Your task to perform on an android device: open app "NewsBreak: Local News & Alerts" (install if not already installed) Image 0: 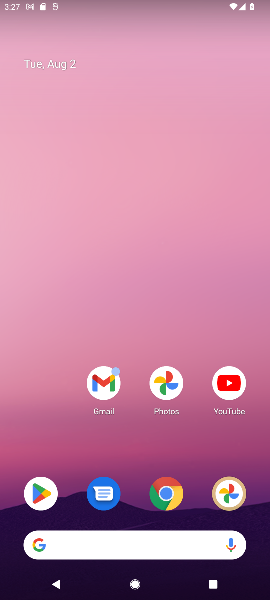
Step 0: click (42, 494)
Your task to perform on an android device: open app "NewsBreak: Local News & Alerts" (install if not already installed) Image 1: 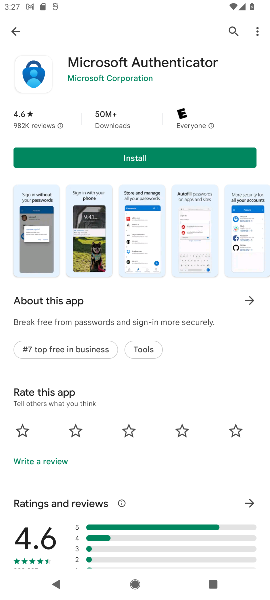
Step 1: click (17, 28)
Your task to perform on an android device: open app "NewsBreak: Local News & Alerts" (install if not already installed) Image 2: 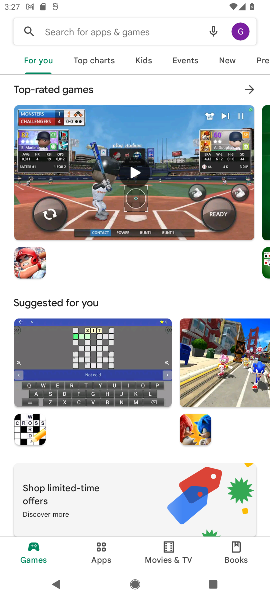
Step 2: click (75, 28)
Your task to perform on an android device: open app "NewsBreak: Local News & Alerts" (install if not already installed) Image 3: 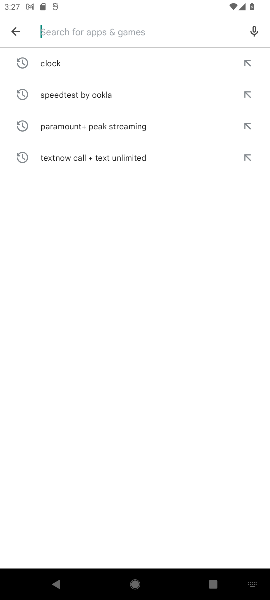
Step 3: type "NewsBreak: Local News & Alerts"
Your task to perform on an android device: open app "NewsBreak: Local News & Alerts" (install if not already installed) Image 4: 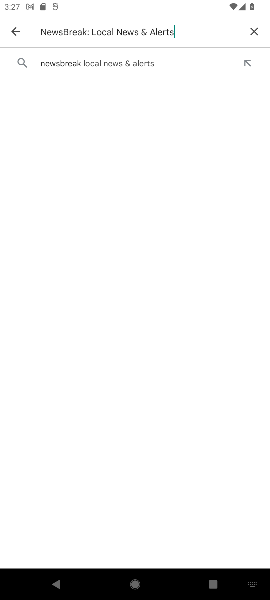
Step 4: click (86, 62)
Your task to perform on an android device: open app "NewsBreak: Local News & Alerts" (install if not already installed) Image 5: 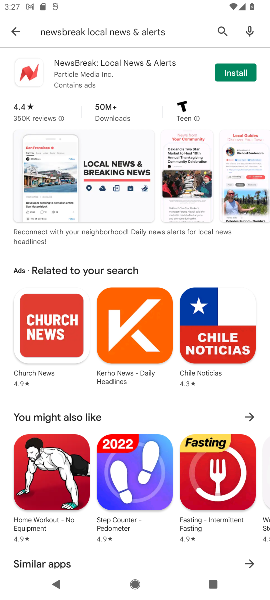
Step 5: click (244, 73)
Your task to perform on an android device: open app "NewsBreak: Local News & Alerts" (install if not already installed) Image 6: 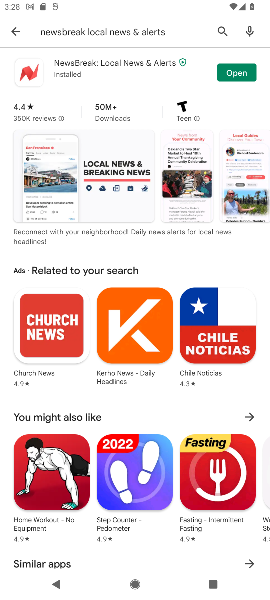
Step 6: click (233, 75)
Your task to perform on an android device: open app "NewsBreak: Local News & Alerts" (install if not already installed) Image 7: 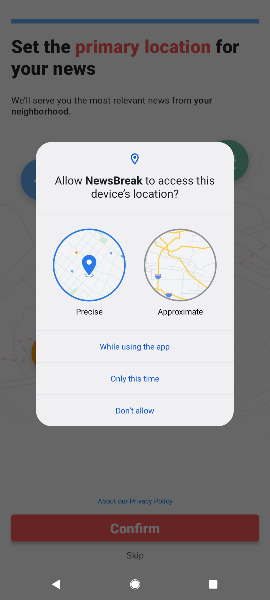
Step 7: click (136, 411)
Your task to perform on an android device: open app "NewsBreak: Local News & Alerts" (install if not already installed) Image 8: 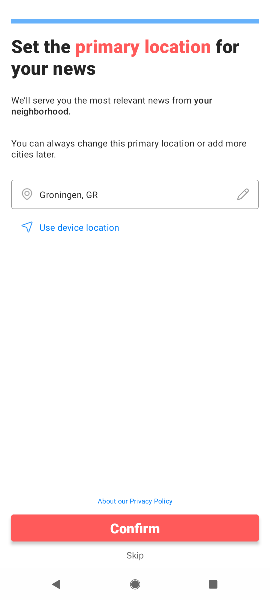
Step 8: task complete